Your task to perform on an android device: manage bookmarks in the chrome app Image 0: 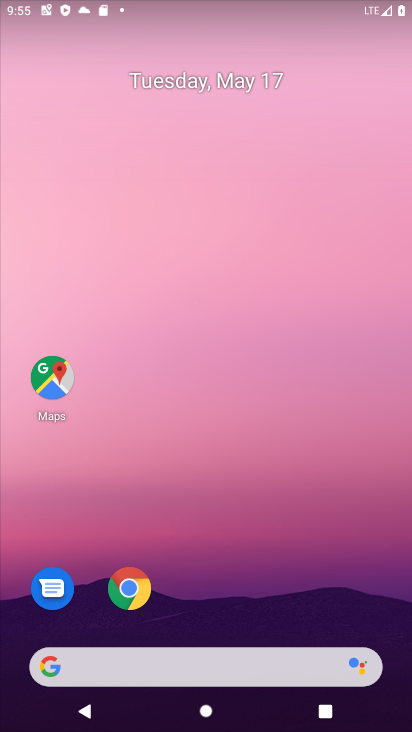
Step 0: drag from (203, 631) to (147, 55)
Your task to perform on an android device: manage bookmarks in the chrome app Image 1: 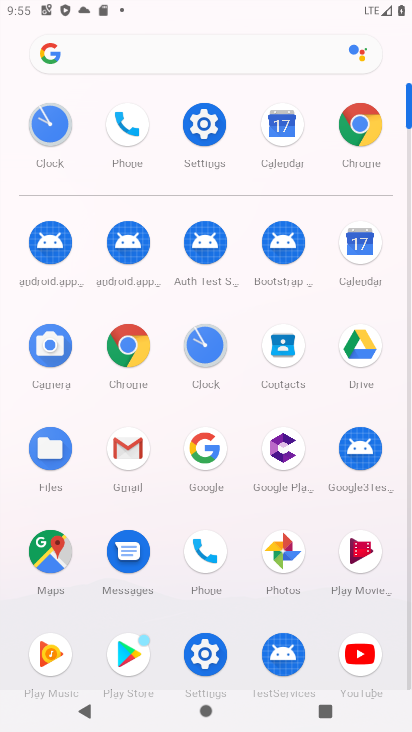
Step 1: click (366, 147)
Your task to perform on an android device: manage bookmarks in the chrome app Image 2: 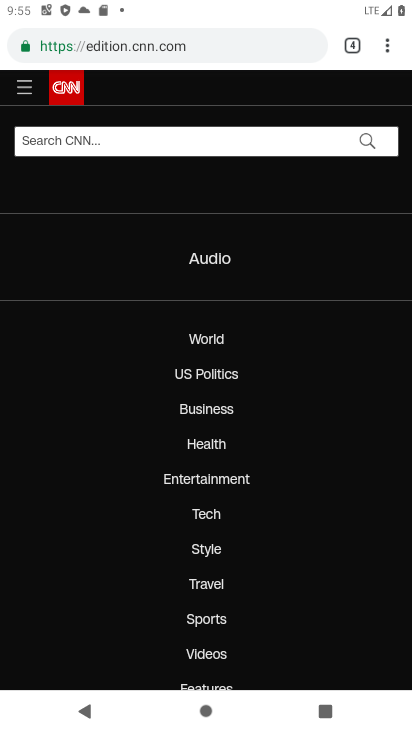
Step 2: click (390, 44)
Your task to perform on an android device: manage bookmarks in the chrome app Image 3: 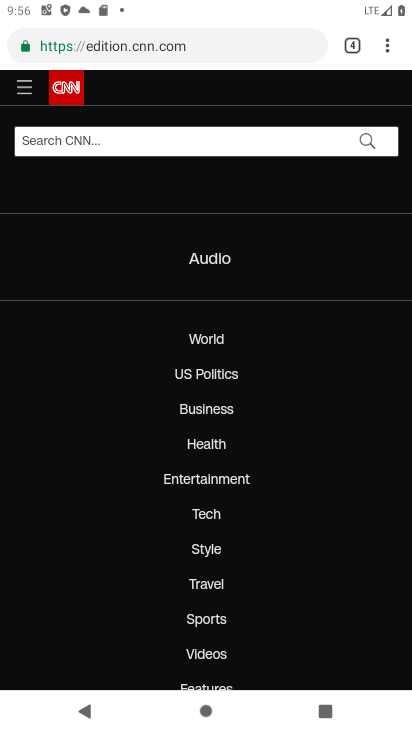
Step 3: drag from (388, 48) to (231, 175)
Your task to perform on an android device: manage bookmarks in the chrome app Image 4: 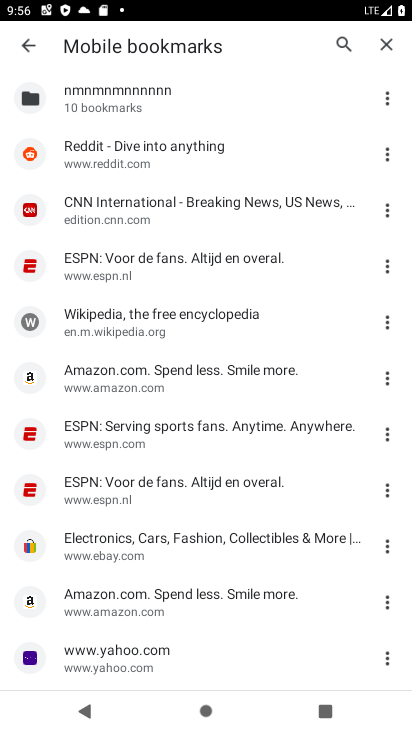
Step 4: click (385, 91)
Your task to perform on an android device: manage bookmarks in the chrome app Image 5: 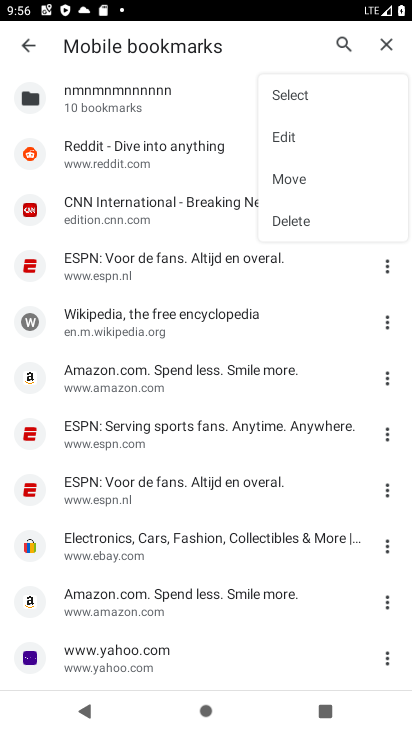
Step 5: click (298, 133)
Your task to perform on an android device: manage bookmarks in the chrome app Image 6: 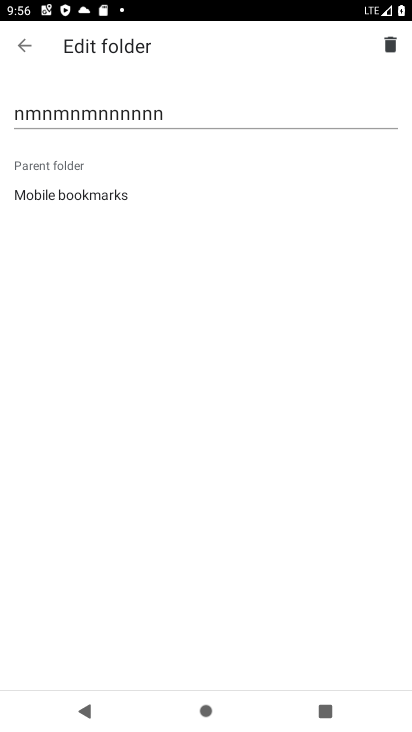
Step 6: task complete